Your task to perform on an android device: Search for a home improvement project you can do. Image 0: 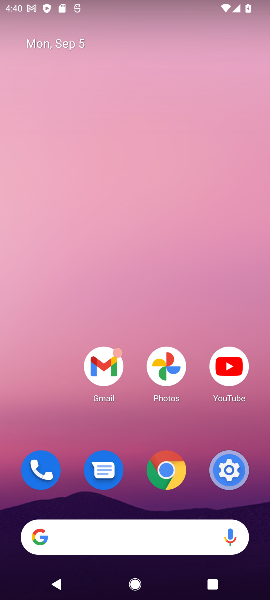
Step 0: click (152, 531)
Your task to perform on an android device: Search for a home improvement project you can do. Image 1: 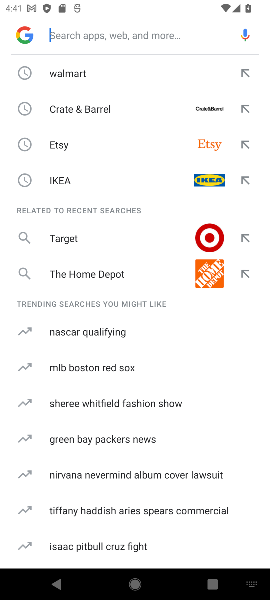
Step 1: type "home improvement project you can do"
Your task to perform on an android device: Search for a home improvement project you can do. Image 2: 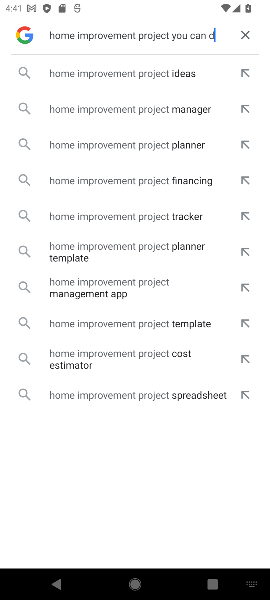
Step 2: type ""
Your task to perform on an android device: Search for a home improvement project you can do. Image 3: 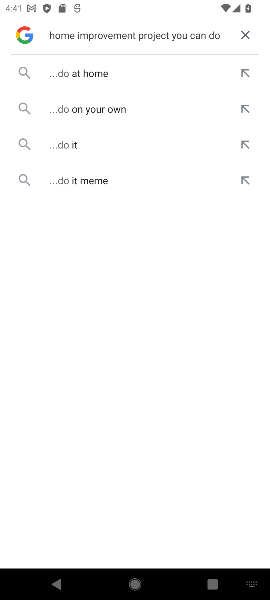
Step 3: press enter
Your task to perform on an android device: Search for a home improvement project you can do. Image 4: 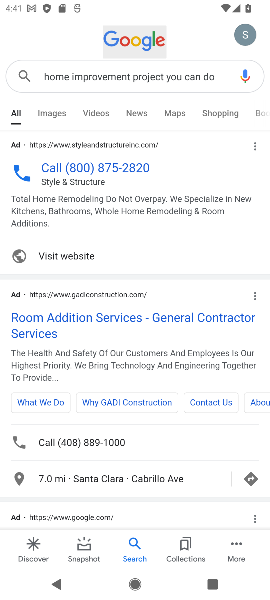
Step 4: drag from (158, 276) to (180, 51)
Your task to perform on an android device: Search for a home improvement project you can do. Image 5: 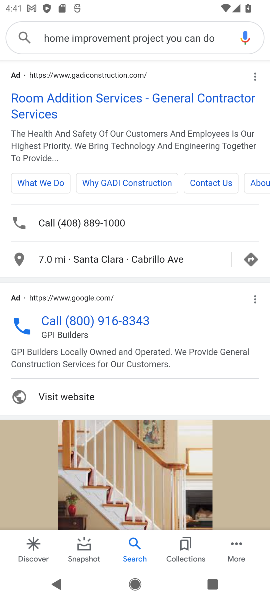
Step 5: drag from (144, 401) to (153, 76)
Your task to perform on an android device: Search for a home improvement project you can do. Image 6: 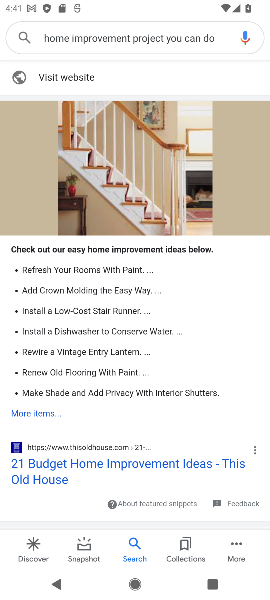
Step 6: drag from (120, 430) to (146, 308)
Your task to perform on an android device: Search for a home improvement project you can do. Image 7: 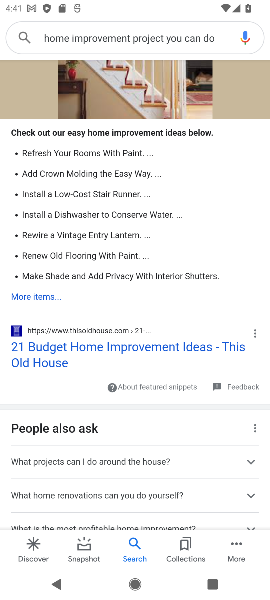
Step 7: click (126, 350)
Your task to perform on an android device: Search for a home improvement project you can do. Image 8: 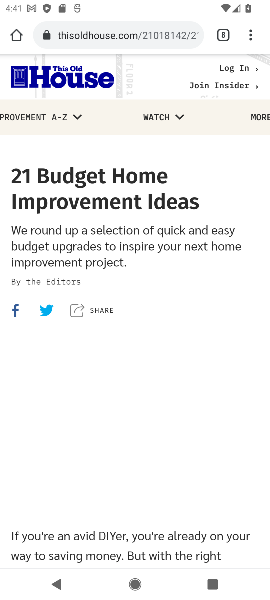
Step 8: click (176, 375)
Your task to perform on an android device: Search for a home improvement project you can do. Image 9: 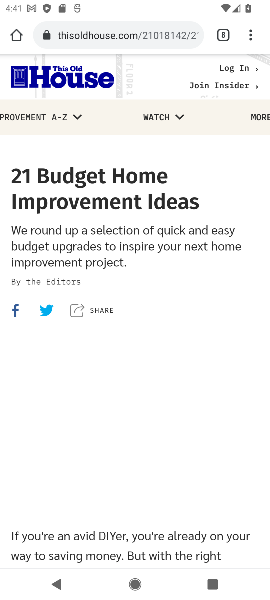
Step 9: task complete